Your task to perform on an android device: Go to Android settings Image 0: 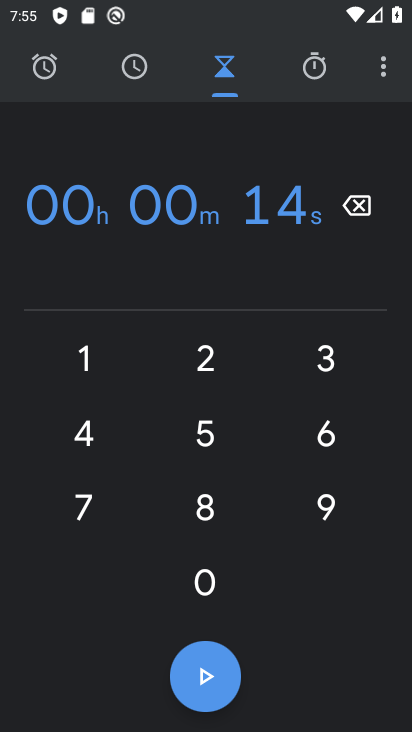
Step 0: press home button
Your task to perform on an android device: Go to Android settings Image 1: 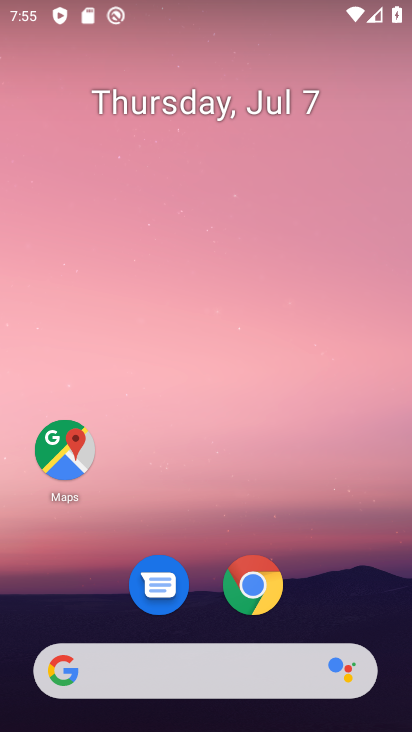
Step 1: drag from (220, 521) to (239, 24)
Your task to perform on an android device: Go to Android settings Image 2: 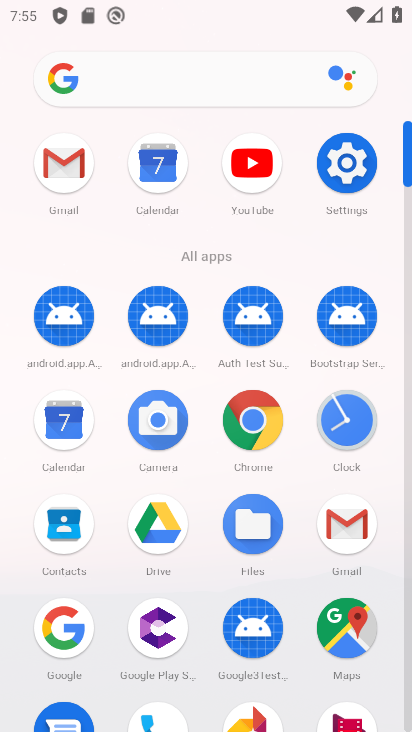
Step 2: click (341, 165)
Your task to perform on an android device: Go to Android settings Image 3: 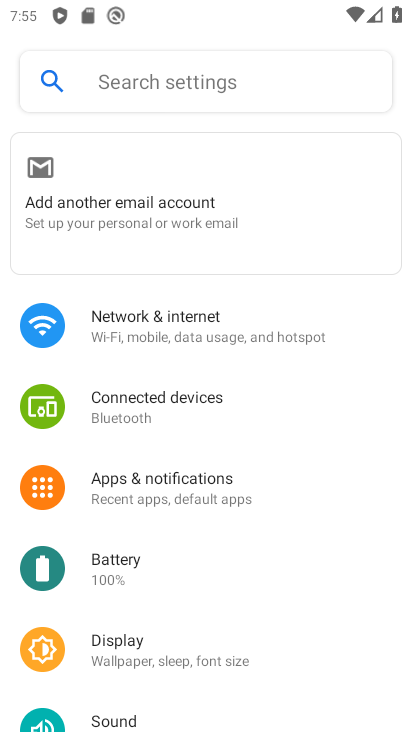
Step 3: drag from (239, 570) to (265, 32)
Your task to perform on an android device: Go to Android settings Image 4: 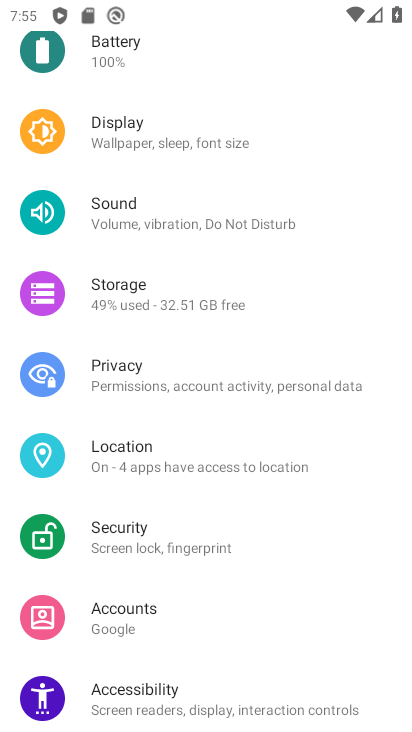
Step 4: drag from (248, 566) to (240, 209)
Your task to perform on an android device: Go to Android settings Image 5: 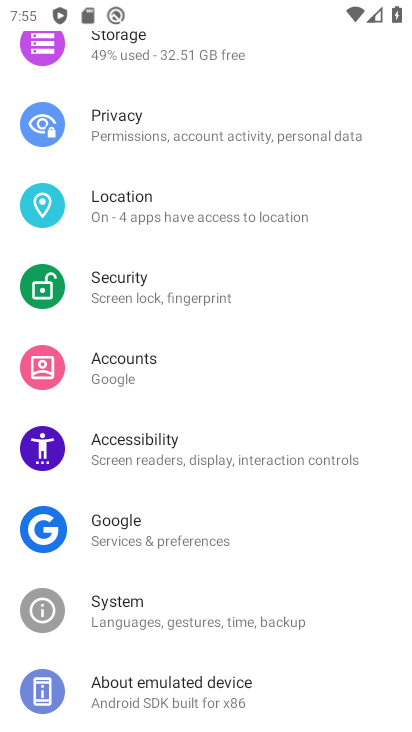
Step 5: click (179, 691)
Your task to perform on an android device: Go to Android settings Image 6: 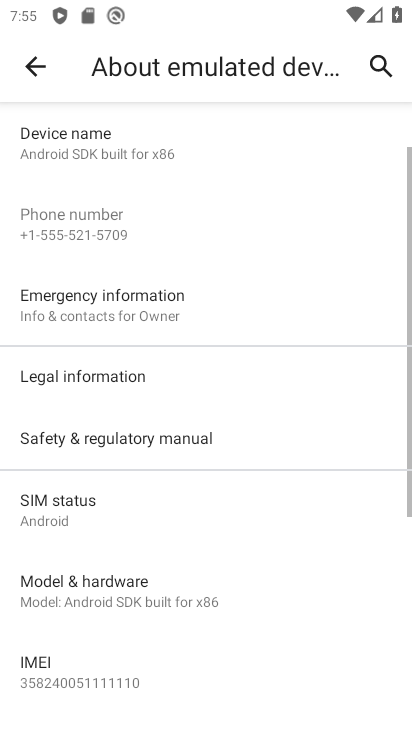
Step 6: task complete